Your task to perform on an android device: change the clock display to analog Image 0: 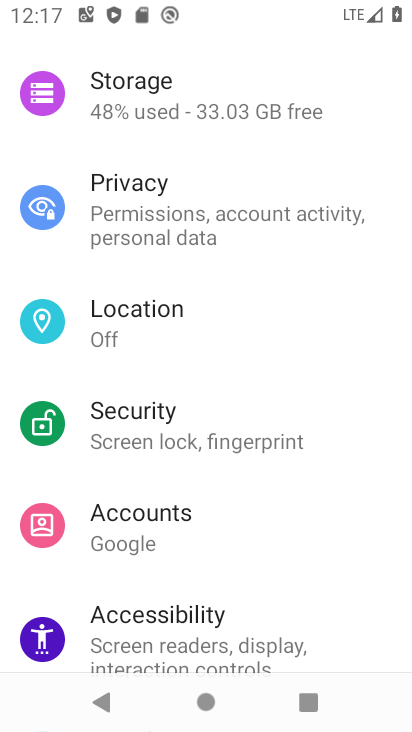
Step 0: press home button
Your task to perform on an android device: change the clock display to analog Image 1: 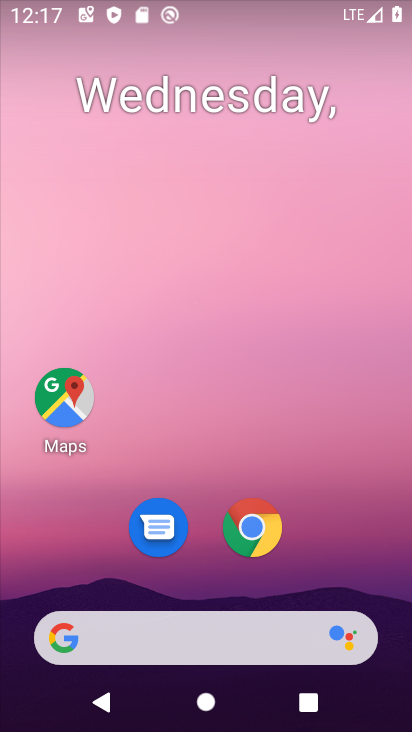
Step 1: drag from (288, 500) to (331, 5)
Your task to perform on an android device: change the clock display to analog Image 2: 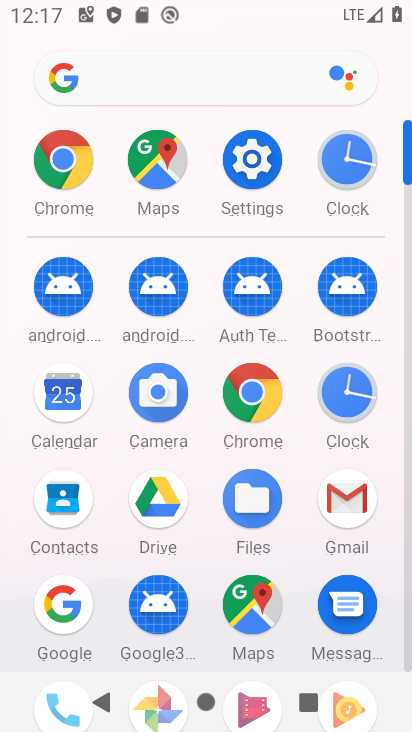
Step 2: click (342, 410)
Your task to perform on an android device: change the clock display to analog Image 3: 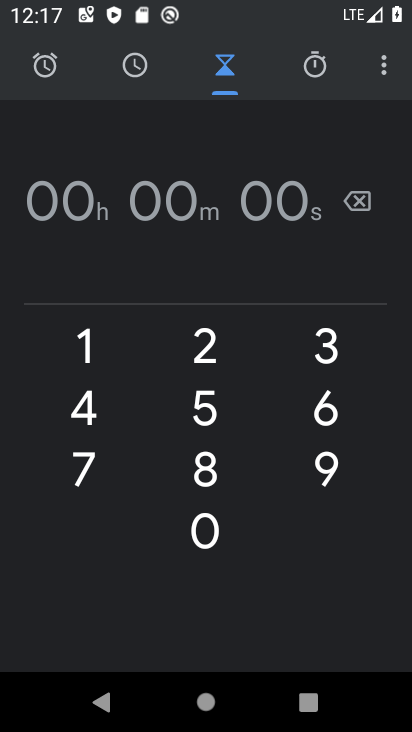
Step 3: click (48, 62)
Your task to perform on an android device: change the clock display to analog Image 4: 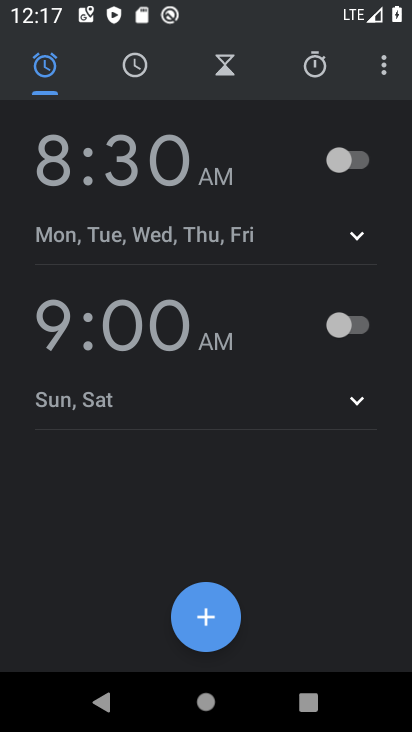
Step 4: click (376, 61)
Your task to perform on an android device: change the clock display to analog Image 5: 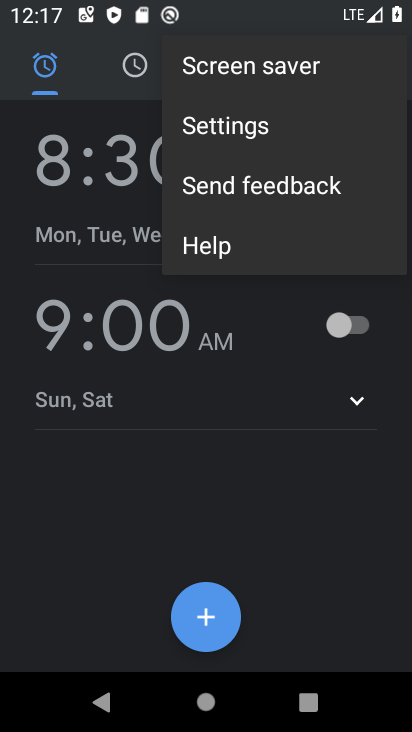
Step 5: click (307, 132)
Your task to perform on an android device: change the clock display to analog Image 6: 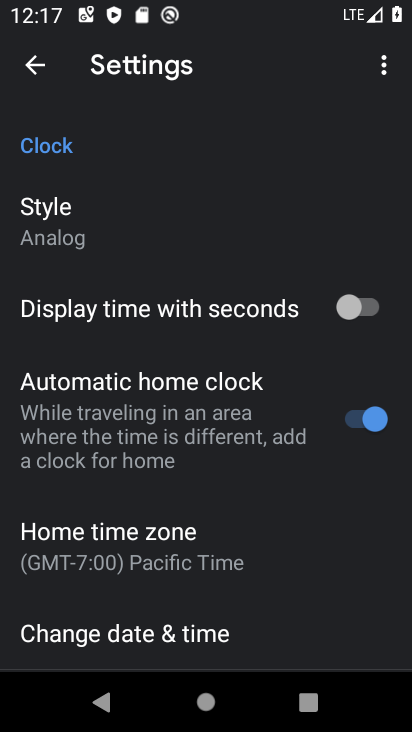
Step 6: task complete